Your task to perform on an android device: What's the weather today? Image 0: 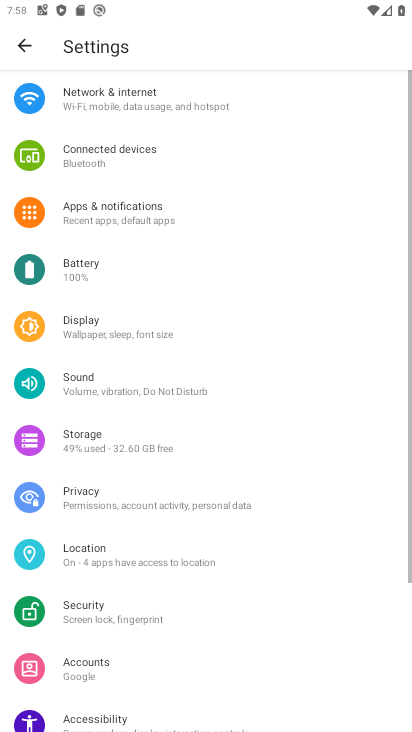
Step 0: press home button
Your task to perform on an android device: What's the weather today? Image 1: 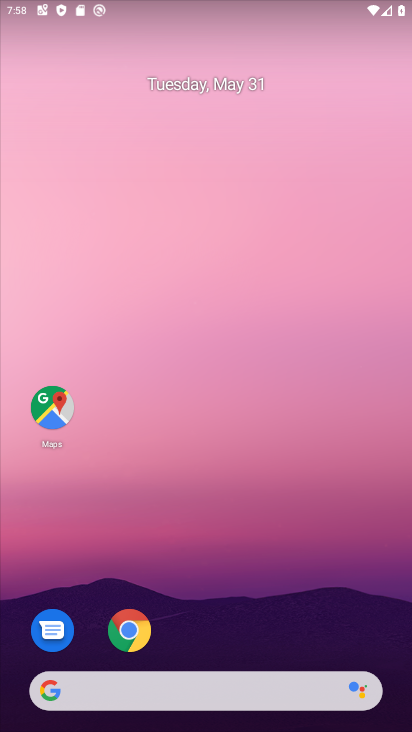
Step 1: click (122, 624)
Your task to perform on an android device: What's the weather today? Image 2: 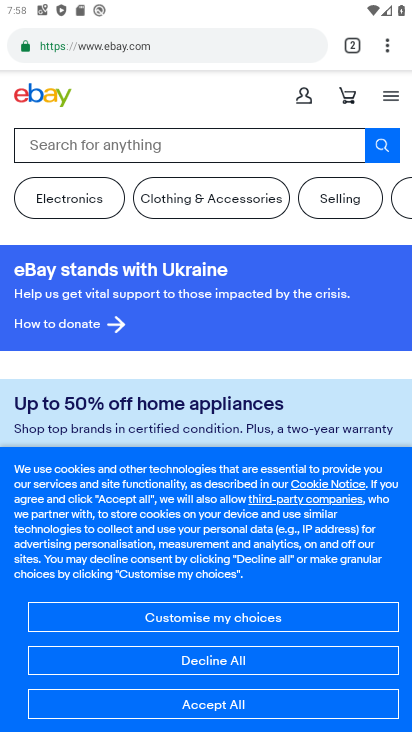
Step 2: click (383, 49)
Your task to perform on an android device: What's the weather today? Image 3: 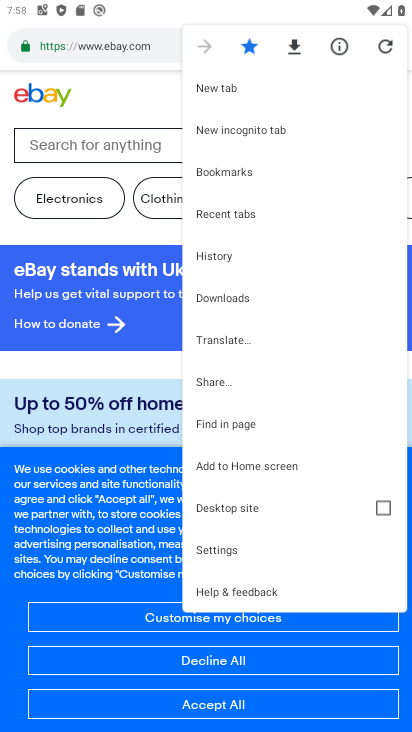
Step 3: click (242, 90)
Your task to perform on an android device: What's the weather today? Image 4: 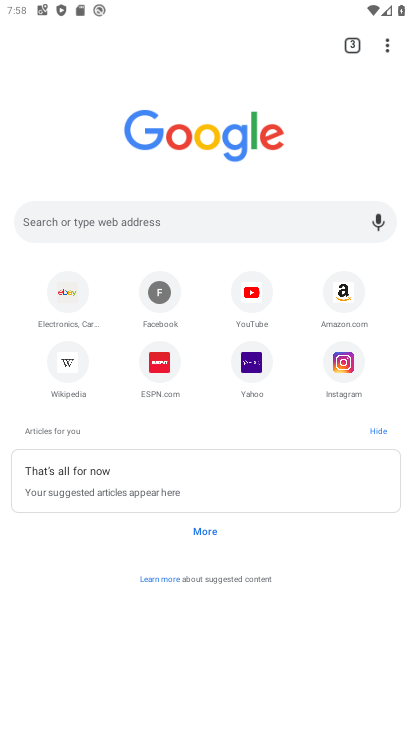
Step 4: click (165, 223)
Your task to perform on an android device: What's the weather today? Image 5: 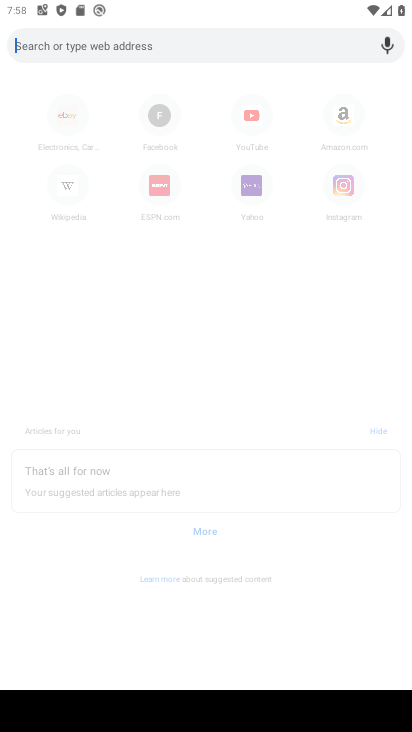
Step 5: type "What's the weather today?"
Your task to perform on an android device: What's the weather today? Image 6: 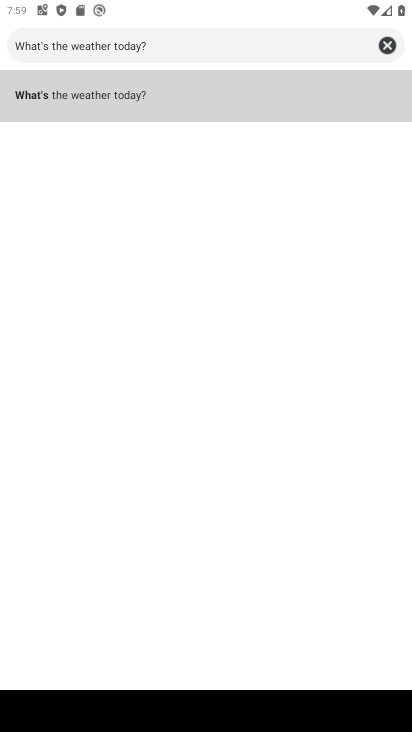
Step 6: click (116, 97)
Your task to perform on an android device: What's the weather today? Image 7: 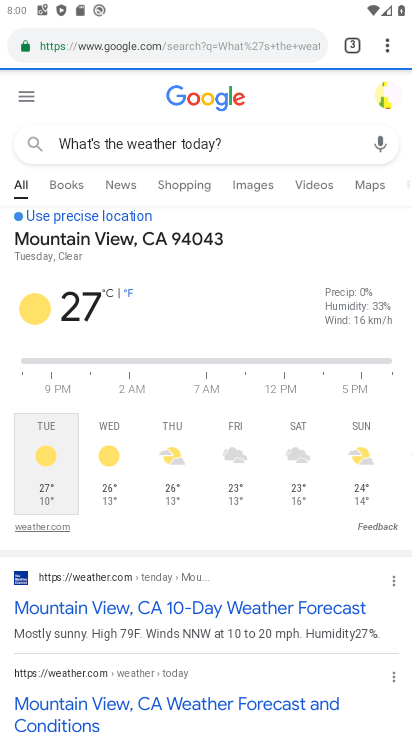
Step 7: task complete